Your task to perform on an android device: Turn off the flashlight Image 0: 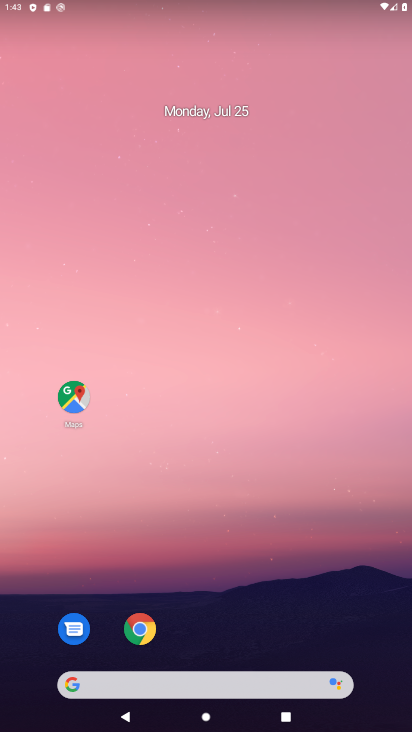
Step 0: drag from (312, 623) to (383, 4)
Your task to perform on an android device: Turn off the flashlight Image 1: 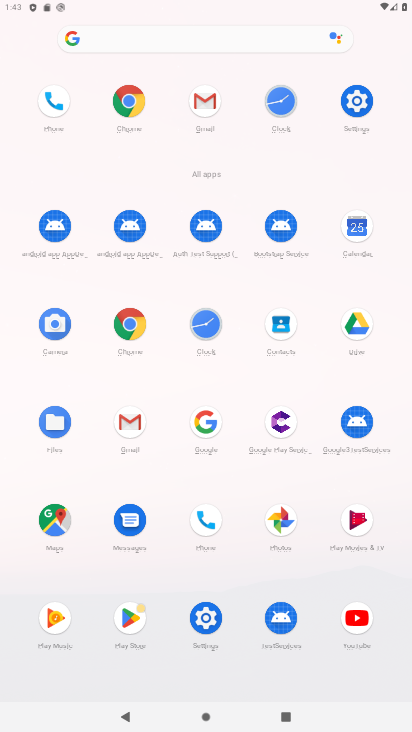
Step 1: click (360, 101)
Your task to perform on an android device: Turn off the flashlight Image 2: 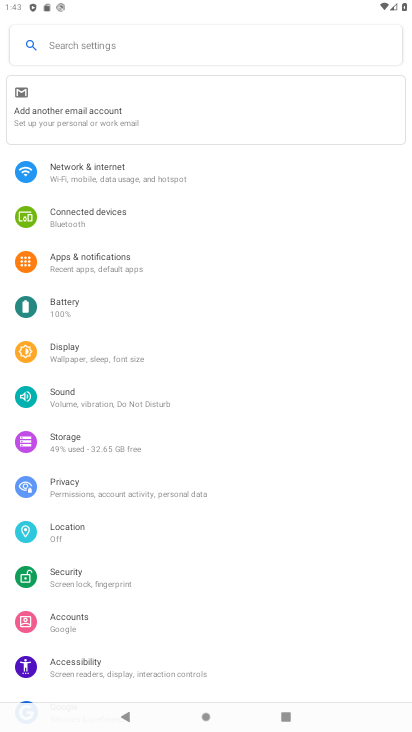
Step 2: task complete